Your task to perform on an android device: Open Youtube and go to the subscriptions tab Image 0: 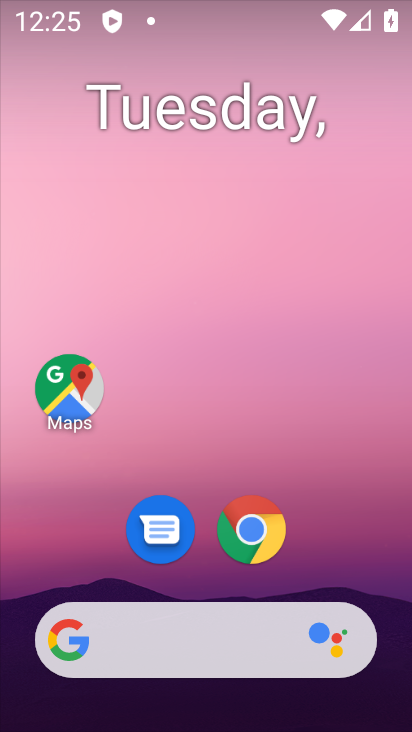
Step 0: drag from (329, 574) to (306, 276)
Your task to perform on an android device: Open Youtube and go to the subscriptions tab Image 1: 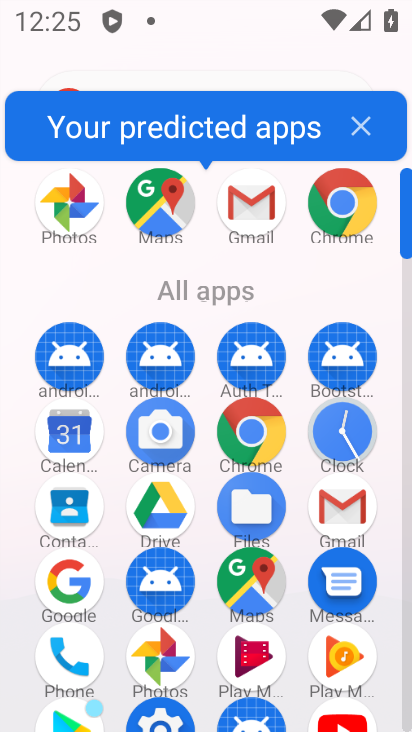
Step 1: drag from (214, 645) to (183, 272)
Your task to perform on an android device: Open Youtube and go to the subscriptions tab Image 2: 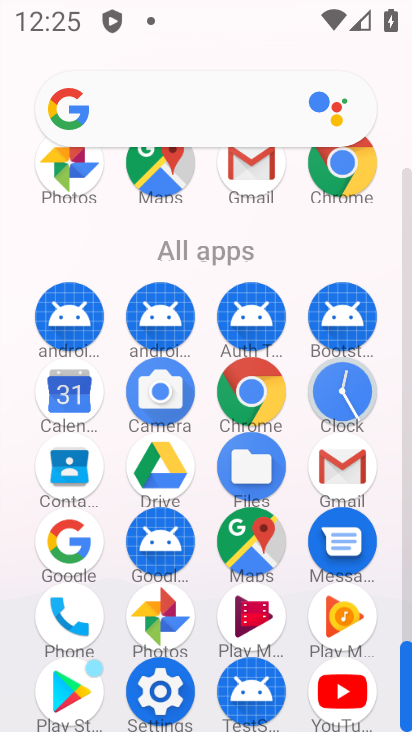
Step 2: drag from (204, 614) to (202, 179)
Your task to perform on an android device: Open Youtube and go to the subscriptions tab Image 3: 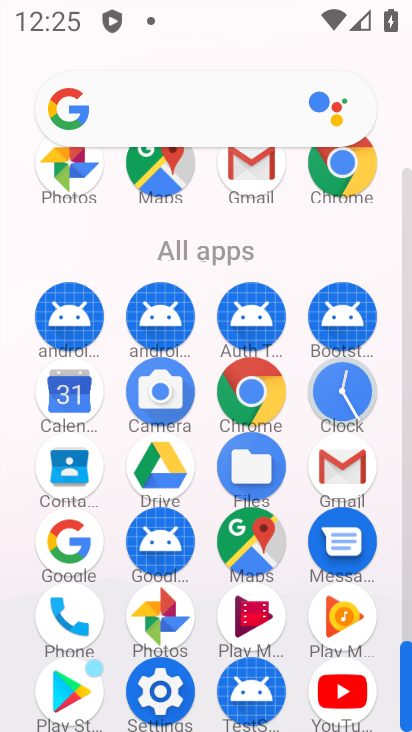
Step 3: click (344, 681)
Your task to perform on an android device: Open Youtube and go to the subscriptions tab Image 4: 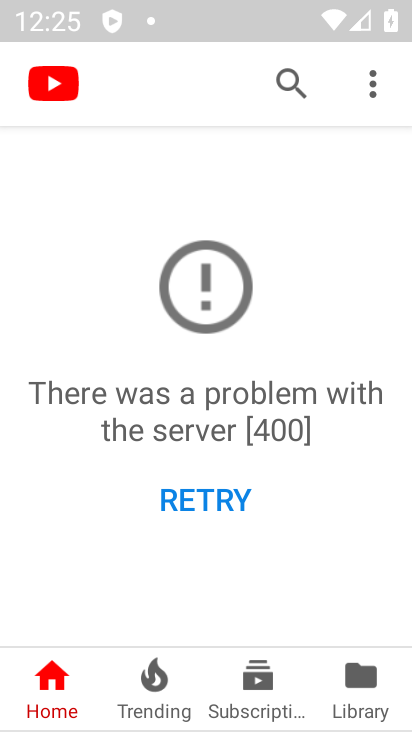
Step 4: click (232, 670)
Your task to perform on an android device: Open Youtube and go to the subscriptions tab Image 5: 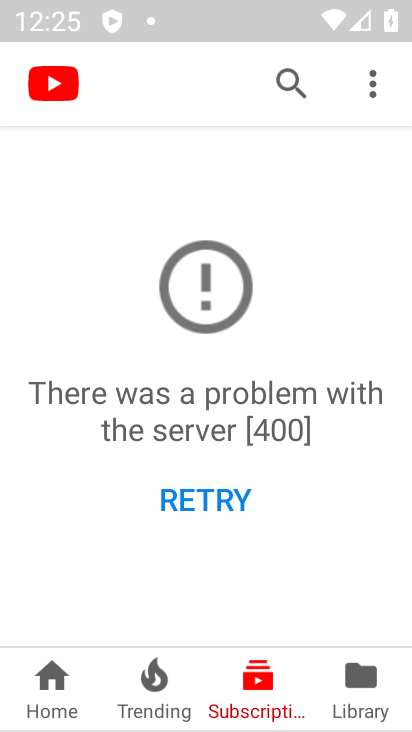
Step 5: task complete